Your task to perform on an android device: Turn off the flashlight Image 0: 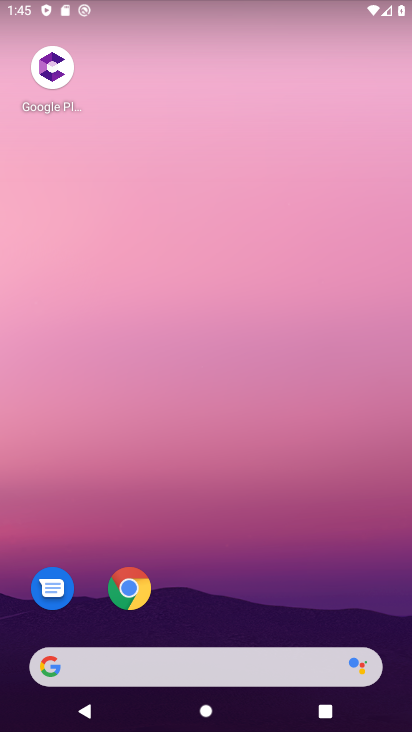
Step 0: drag from (274, 535) to (346, 63)
Your task to perform on an android device: Turn off the flashlight Image 1: 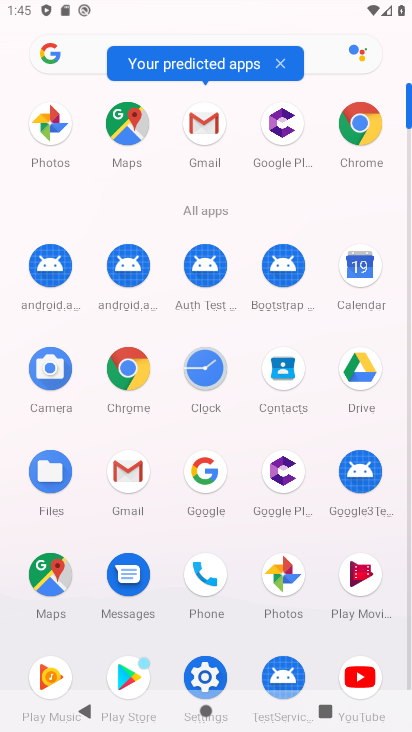
Step 1: drag from (230, 603) to (272, 404)
Your task to perform on an android device: Turn off the flashlight Image 2: 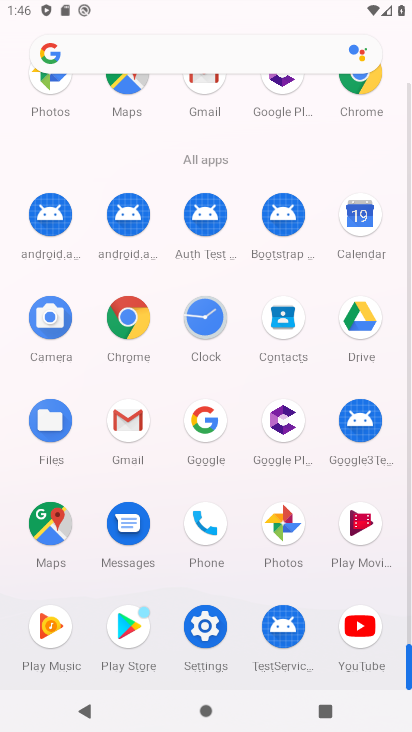
Step 2: click (202, 622)
Your task to perform on an android device: Turn off the flashlight Image 3: 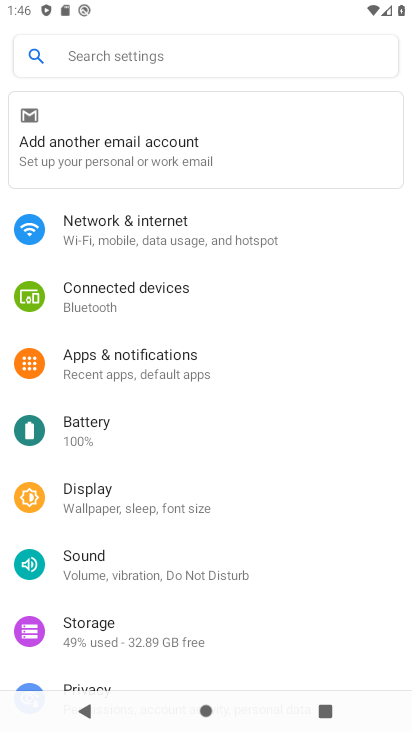
Step 3: click (301, 50)
Your task to perform on an android device: Turn off the flashlight Image 4: 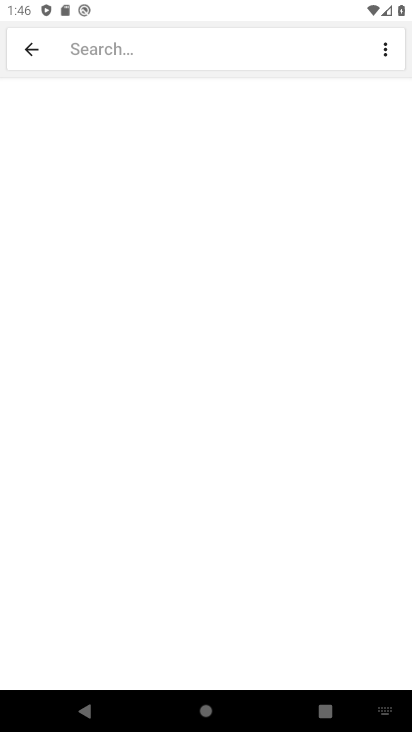
Step 4: type "Flashlight"
Your task to perform on an android device: Turn off the flashlight Image 5: 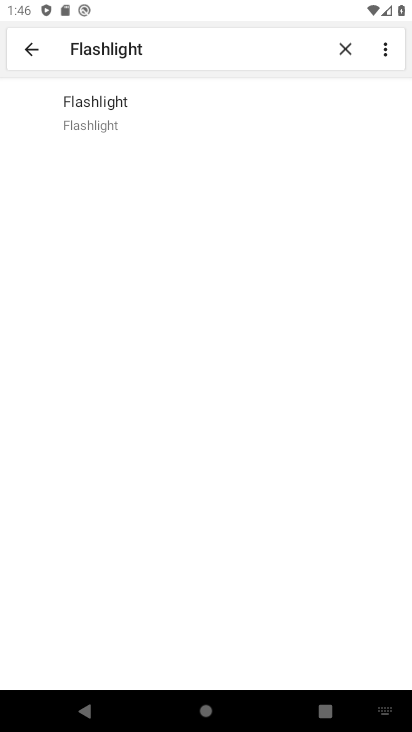
Step 5: click (95, 103)
Your task to perform on an android device: Turn off the flashlight Image 6: 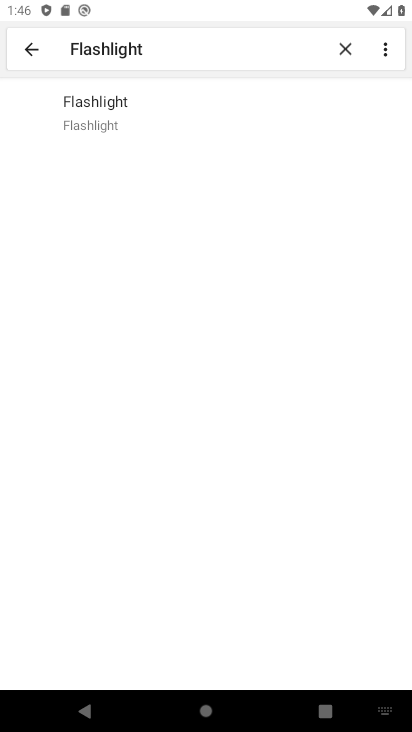
Step 6: task complete